Your task to perform on an android device: Go to location settings Image 0: 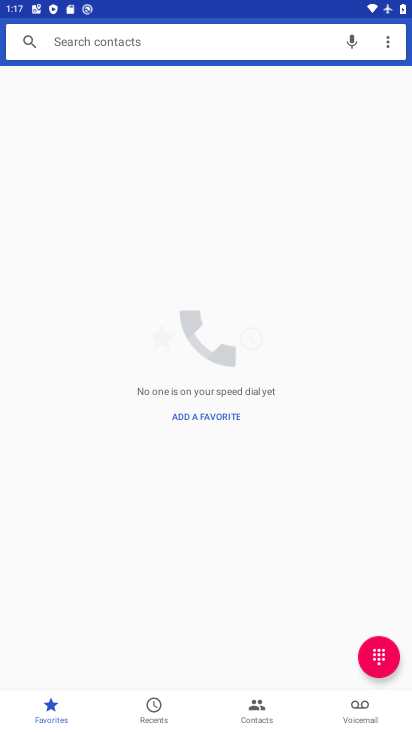
Step 0: press home button
Your task to perform on an android device: Go to location settings Image 1: 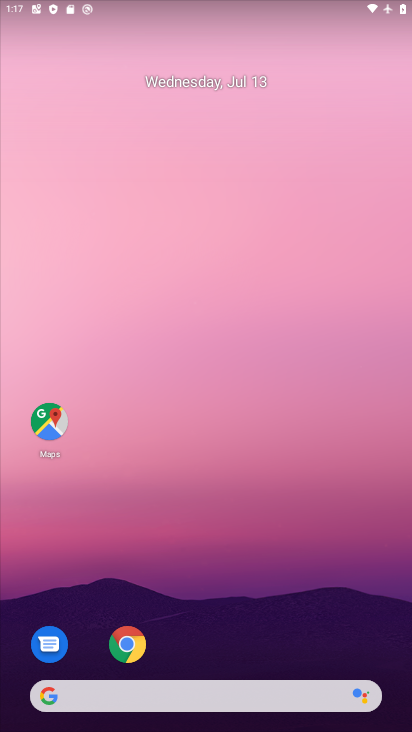
Step 1: drag from (306, 528) to (265, 142)
Your task to perform on an android device: Go to location settings Image 2: 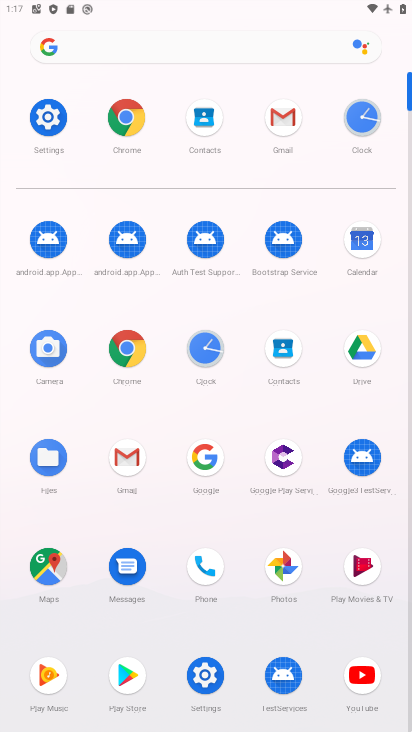
Step 2: click (51, 112)
Your task to perform on an android device: Go to location settings Image 3: 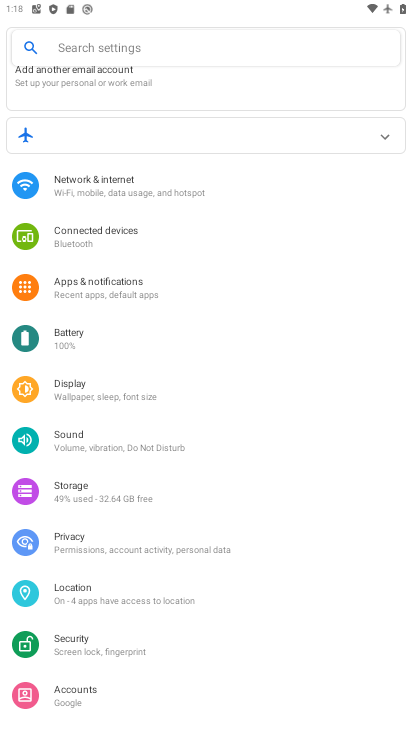
Step 3: click (111, 596)
Your task to perform on an android device: Go to location settings Image 4: 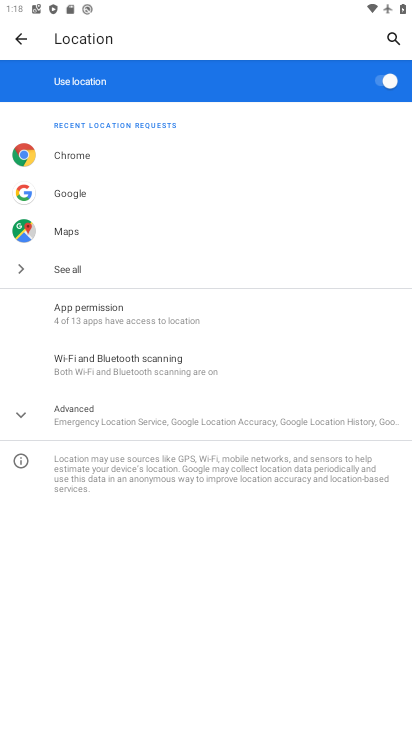
Step 4: task complete